Your task to perform on an android device: choose inbox layout in the gmail app Image 0: 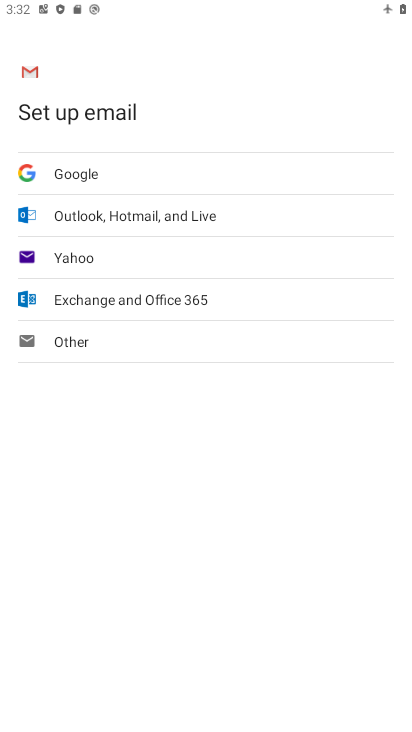
Step 0: press home button
Your task to perform on an android device: choose inbox layout in the gmail app Image 1: 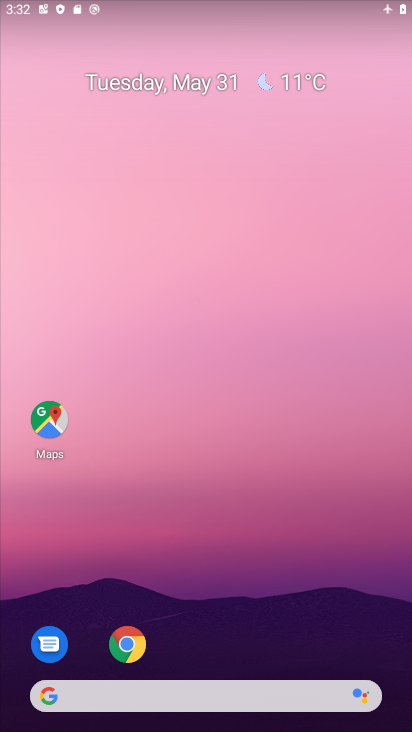
Step 1: drag from (213, 450) to (200, 1)
Your task to perform on an android device: choose inbox layout in the gmail app Image 2: 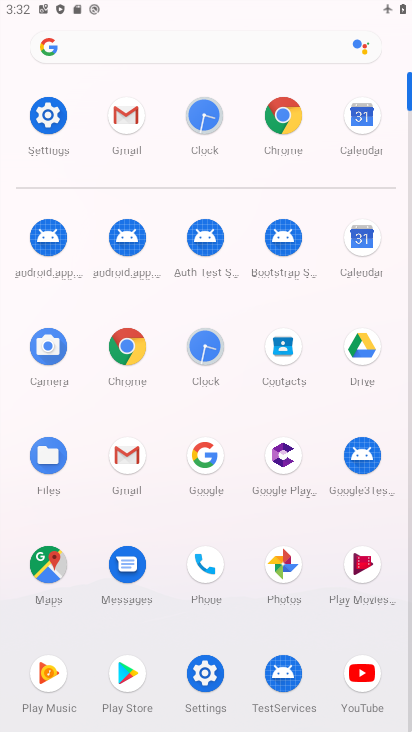
Step 2: click (132, 129)
Your task to perform on an android device: choose inbox layout in the gmail app Image 3: 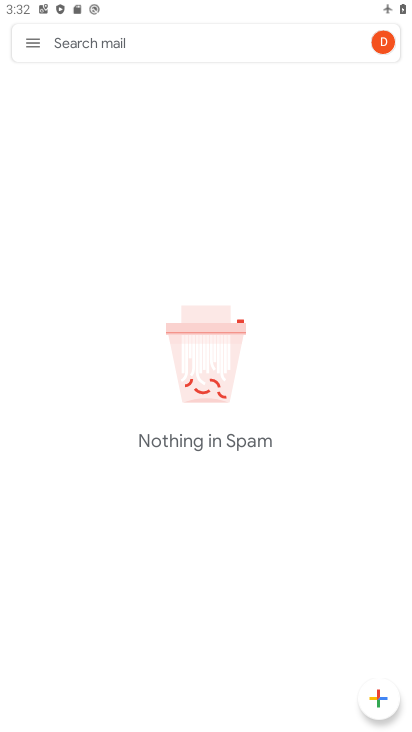
Step 3: click (25, 26)
Your task to perform on an android device: choose inbox layout in the gmail app Image 4: 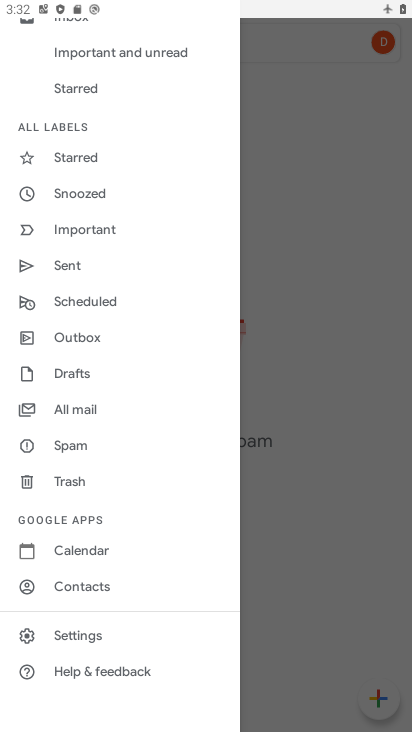
Step 4: drag from (107, 263) to (56, 510)
Your task to perform on an android device: choose inbox layout in the gmail app Image 5: 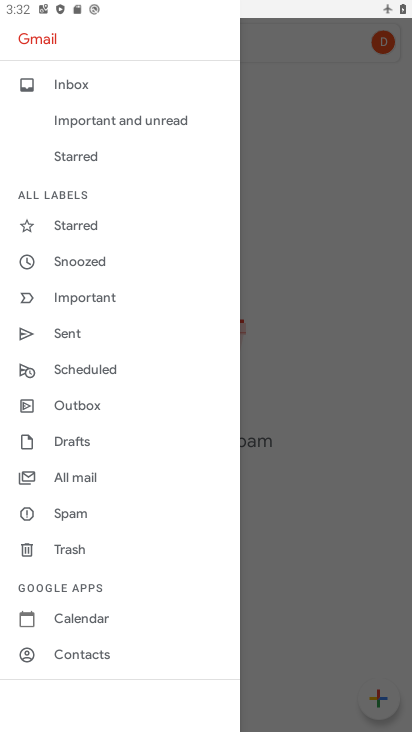
Step 5: click (59, 100)
Your task to perform on an android device: choose inbox layout in the gmail app Image 6: 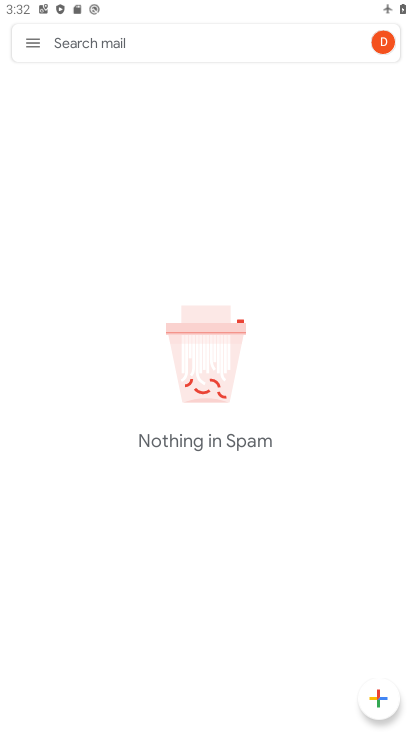
Step 6: click (52, 79)
Your task to perform on an android device: choose inbox layout in the gmail app Image 7: 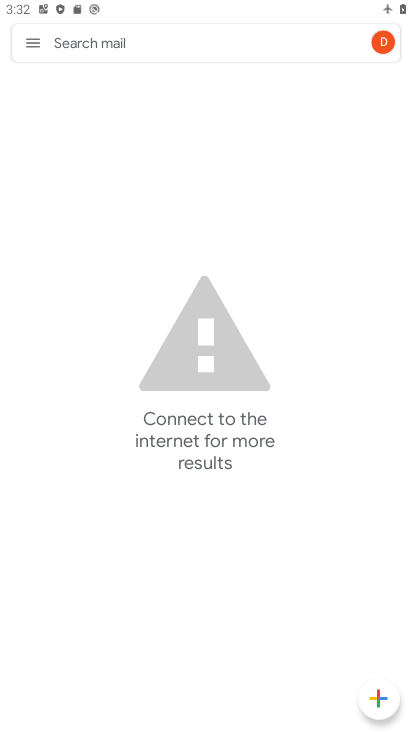
Step 7: click (42, 39)
Your task to perform on an android device: choose inbox layout in the gmail app Image 8: 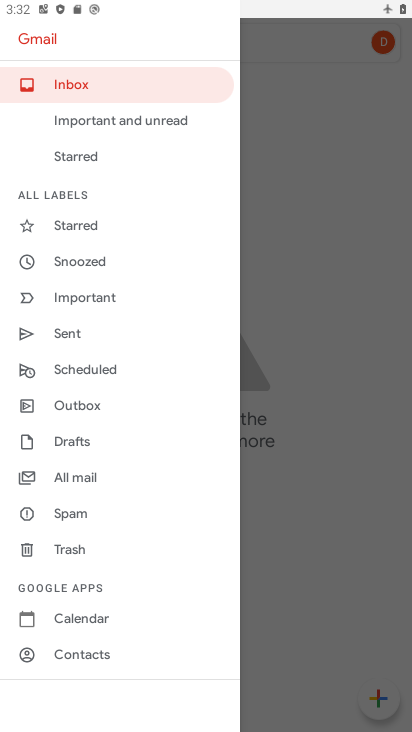
Step 8: drag from (99, 514) to (104, 205)
Your task to perform on an android device: choose inbox layout in the gmail app Image 9: 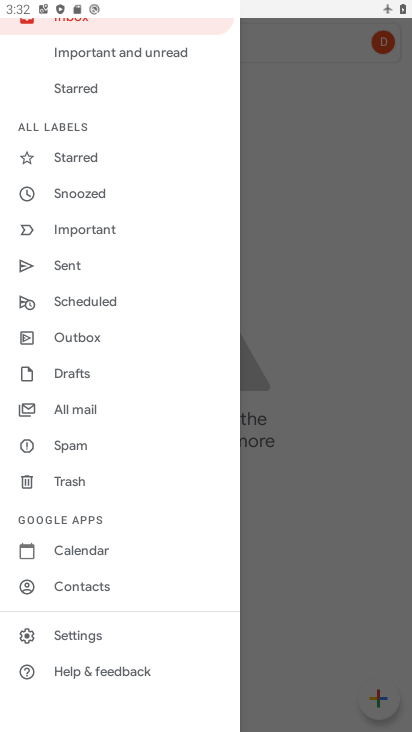
Step 9: click (78, 632)
Your task to perform on an android device: choose inbox layout in the gmail app Image 10: 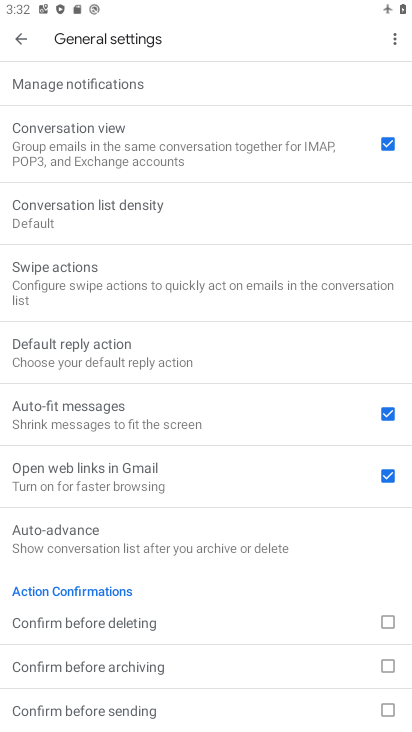
Step 10: drag from (154, 527) to (140, 114)
Your task to perform on an android device: choose inbox layout in the gmail app Image 11: 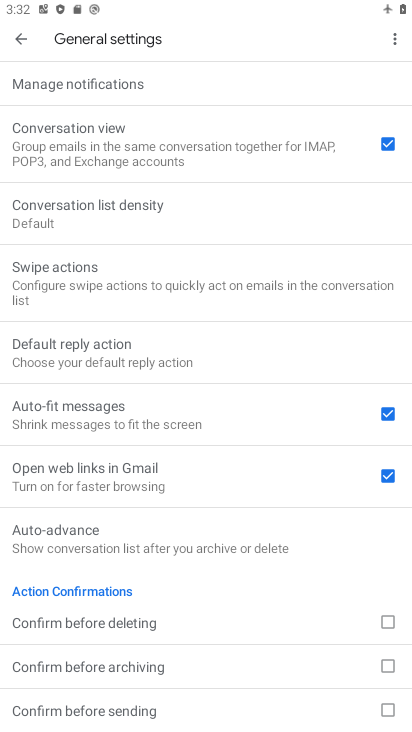
Step 11: drag from (142, 143) to (117, 369)
Your task to perform on an android device: choose inbox layout in the gmail app Image 12: 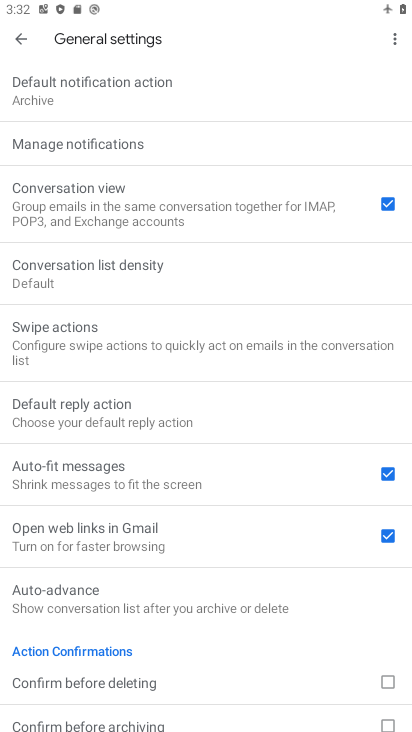
Step 12: click (109, 379)
Your task to perform on an android device: choose inbox layout in the gmail app Image 13: 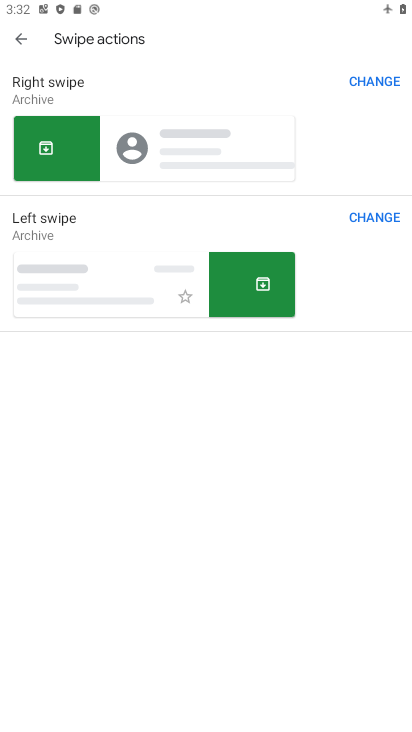
Step 13: task complete